Your task to perform on an android device: Go to calendar. Show me events next week Image 0: 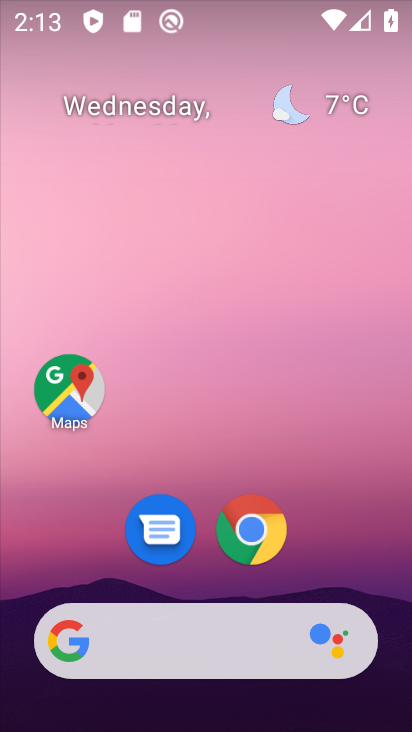
Step 0: drag from (385, 541) to (313, 96)
Your task to perform on an android device: Go to calendar. Show me events next week Image 1: 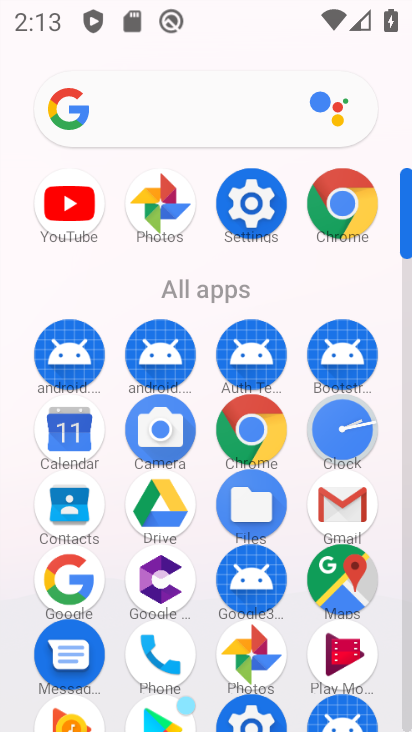
Step 1: click (69, 448)
Your task to perform on an android device: Go to calendar. Show me events next week Image 2: 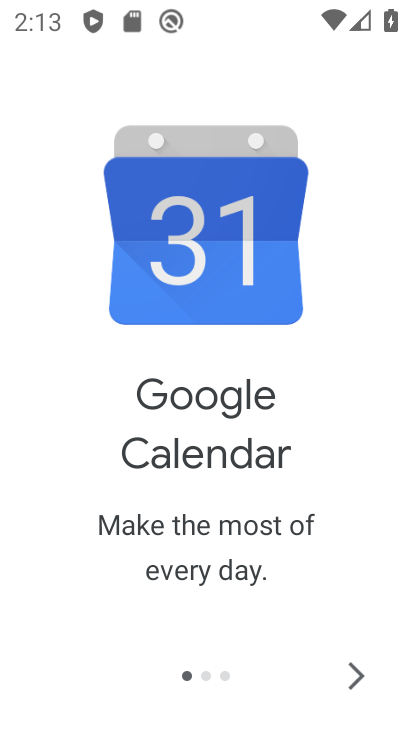
Step 2: click (351, 668)
Your task to perform on an android device: Go to calendar. Show me events next week Image 3: 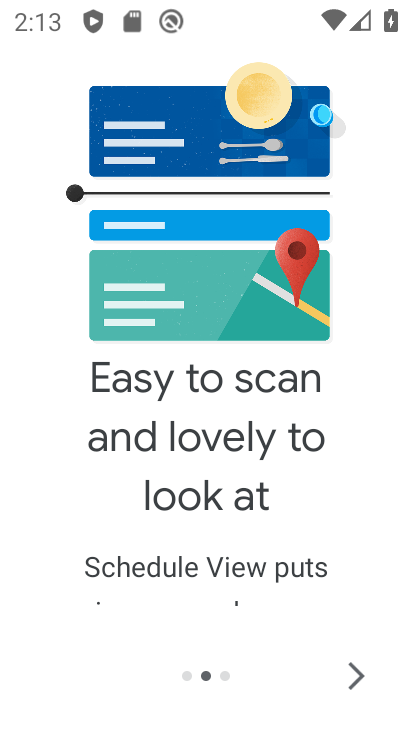
Step 3: click (355, 663)
Your task to perform on an android device: Go to calendar. Show me events next week Image 4: 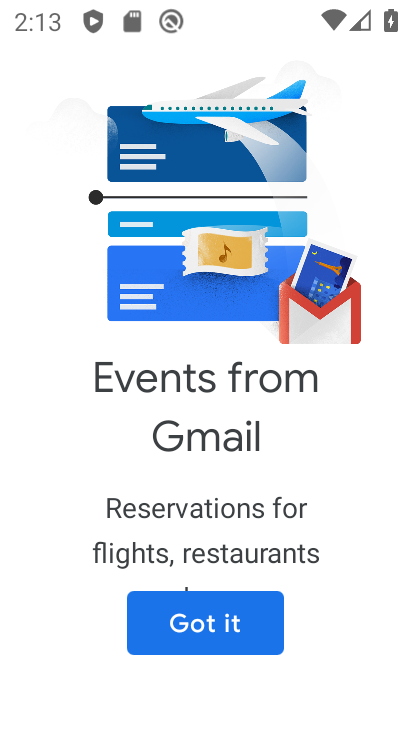
Step 4: click (226, 626)
Your task to perform on an android device: Go to calendar. Show me events next week Image 5: 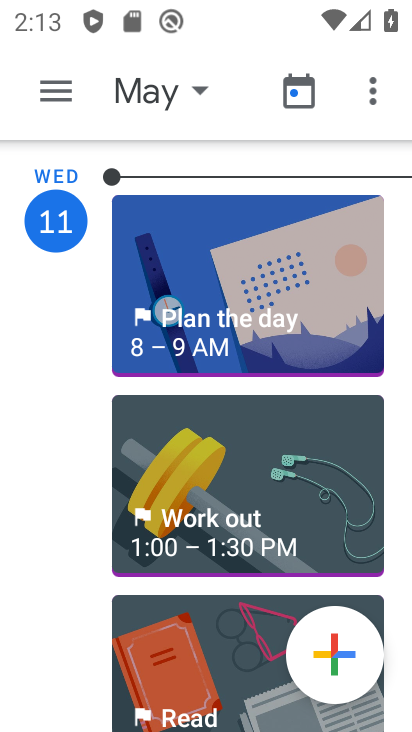
Step 5: click (134, 90)
Your task to perform on an android device: Go to calendar. Show me events next week Image 6: 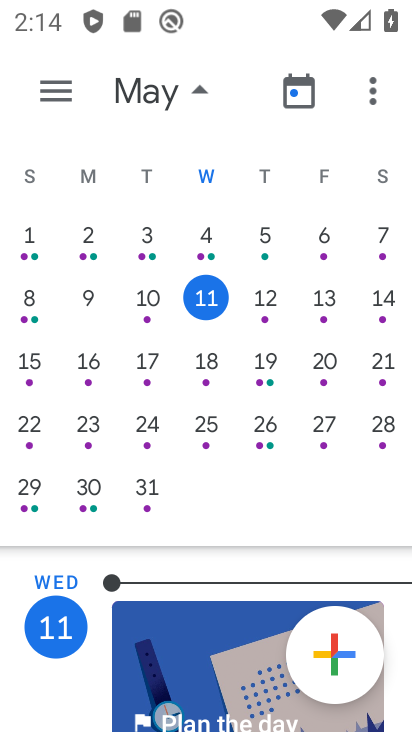
Step 6: click (209, 379)
Your task to perform on an android device: Go to calendar. Show me events next week Image 7: 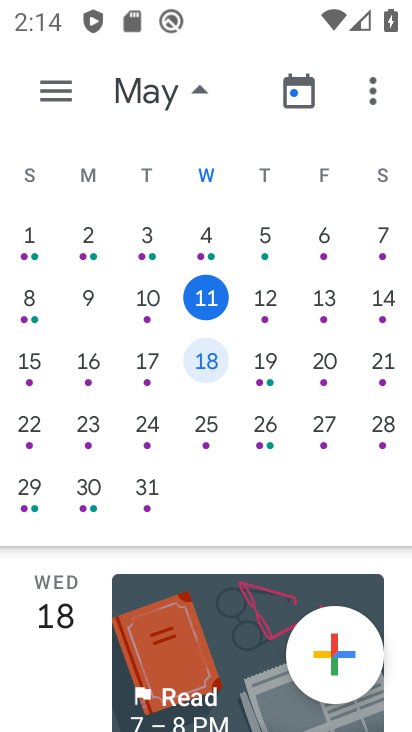
Step 7: task complete